Your task to perform on an android device: change the clock display to analog Image 0: 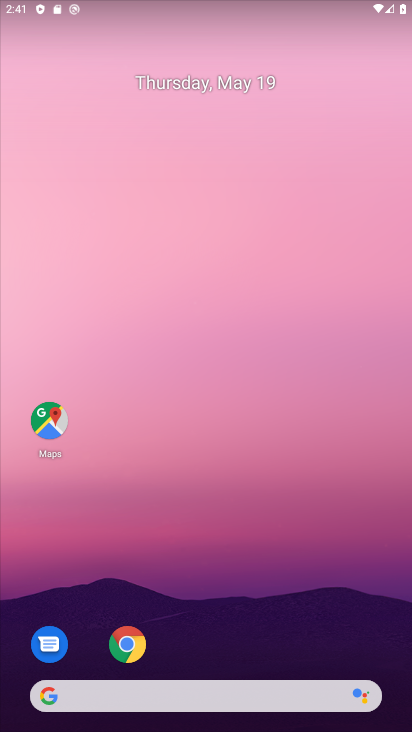
Step 0: drag from (263, 525) to (271, 105)
Your task to perform on an android device: change the clock display to analog Image 1: 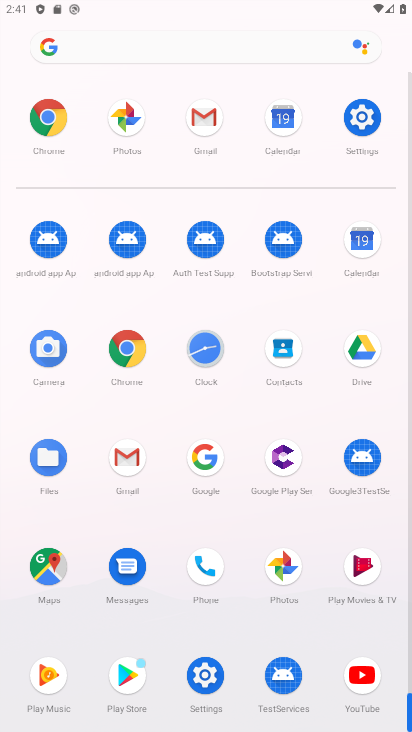
Step 1: click (193, 344)
Your task to perform on an android device: change the clock display to analog Image 2: 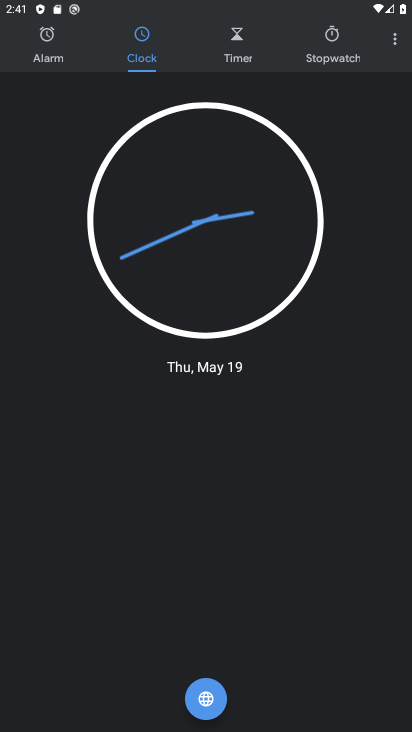
Step 2: click (387, 39)
Your task to perform on an android device: change the clock display to analog Image 3: 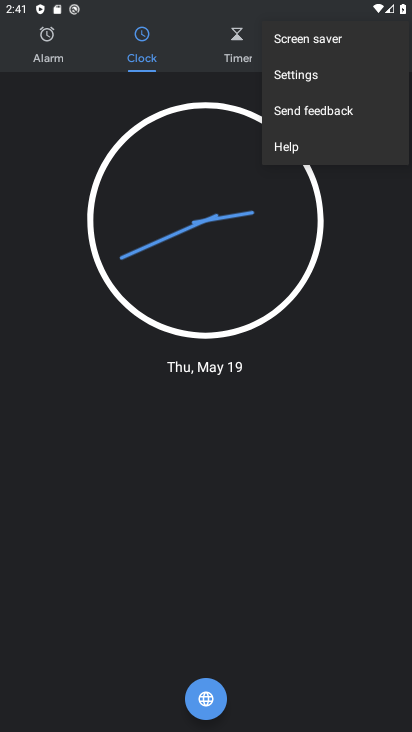
Step 3: click (314, 77)
Your task to perform on an android device: change the clock display to analog Image 4: 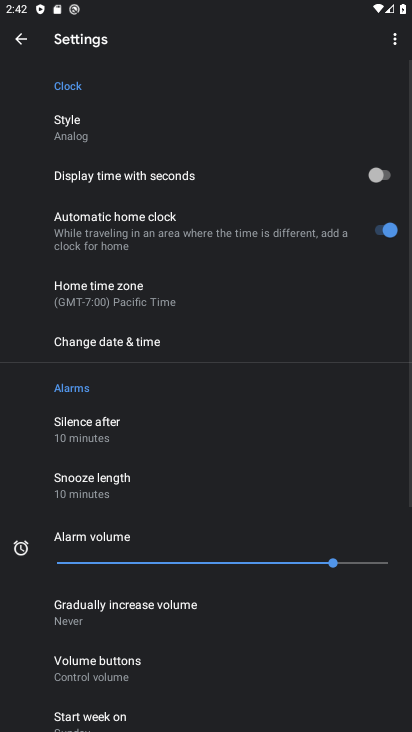
Step 4: click (107, 139)
Your task to perform on an android device: change the clock display to analog Image 5: 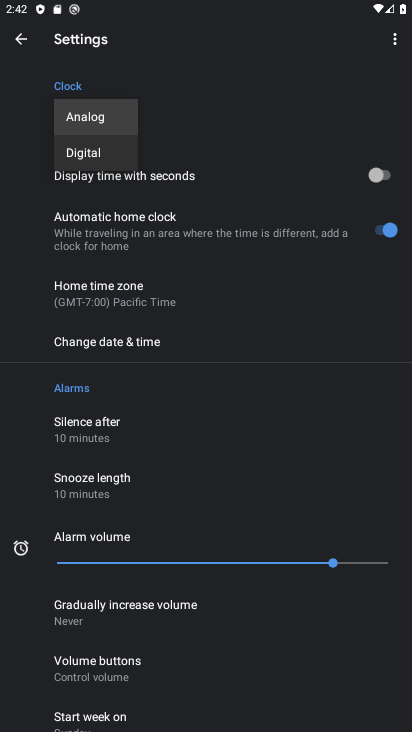
Step 5: task complete